Your task to perform on an android device: What's on my calendar tomorrow? Image 0: 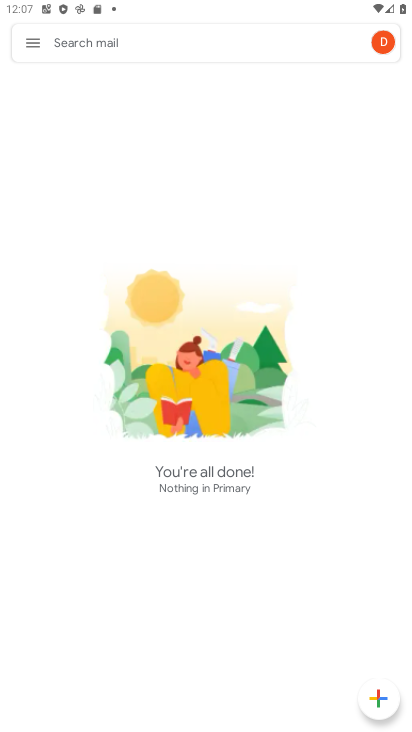
Step 0: press home button
Your task to perform on an android device: What's on my calendar tomorrow? Image 1: 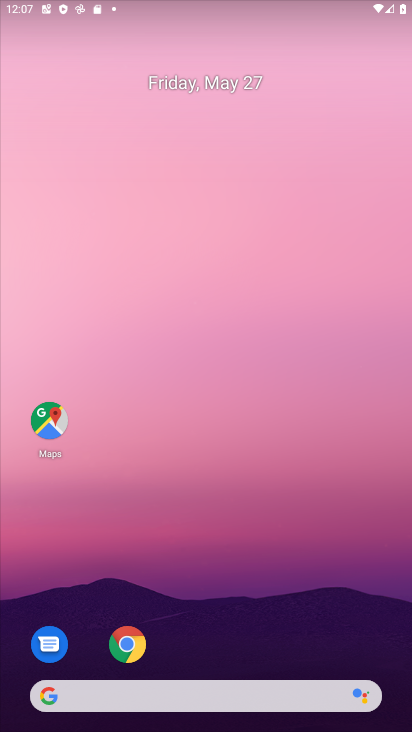
Step 1: drag from (336, 642) to (300, 38)
Your task to perform on an android device: What's on my calendar tomorrow? Image 2: 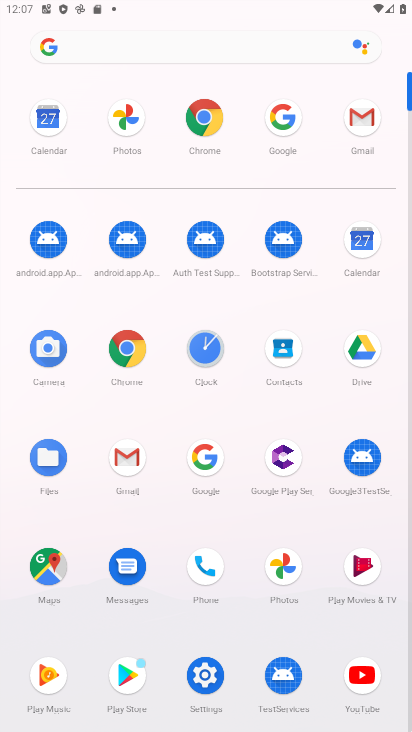
Step 2: click (357, 253)
Your task to perform on an android device: What's on my calendar tomorrow? Image 3: 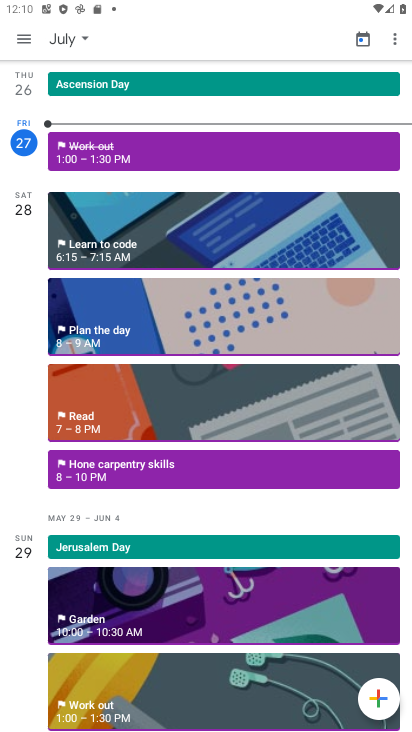
Step 3: task complete